Your task to perform on an android device: turn on improve location accuracy Image 0: 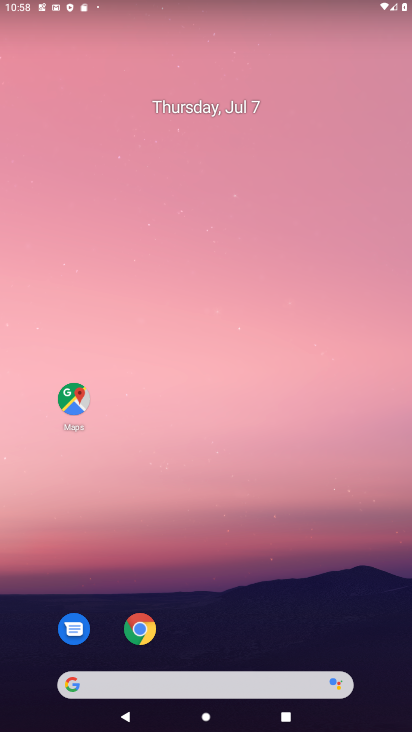
Step 0: drag from (372, 636) to (304, 81)
Your task to perform on an android device: turn on improve location accuracy Image 1: 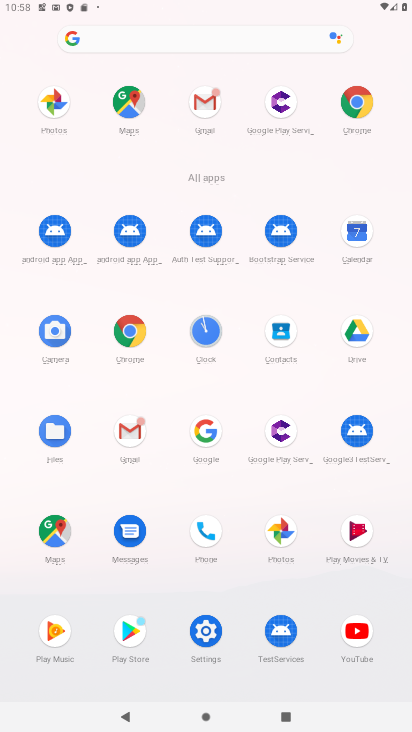
Step 1: click (209, 640)
Your task to perform on an android device: turn on improve location accuracy Image 2: 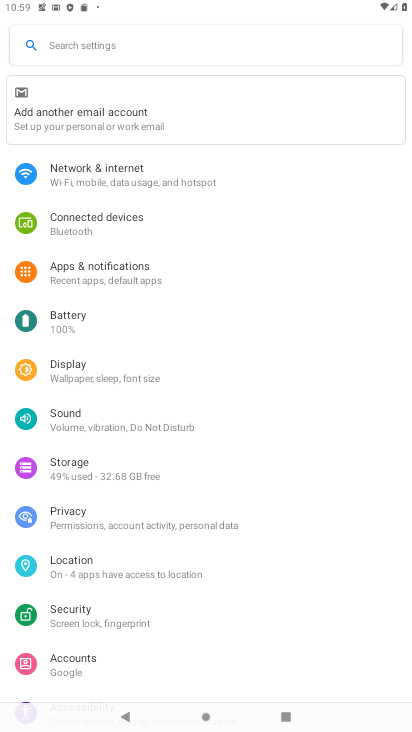
Step 2: drag from (147, 586) to (148, 490)
Your task to perform on an android device: turn on improve location accuracy Image 3: 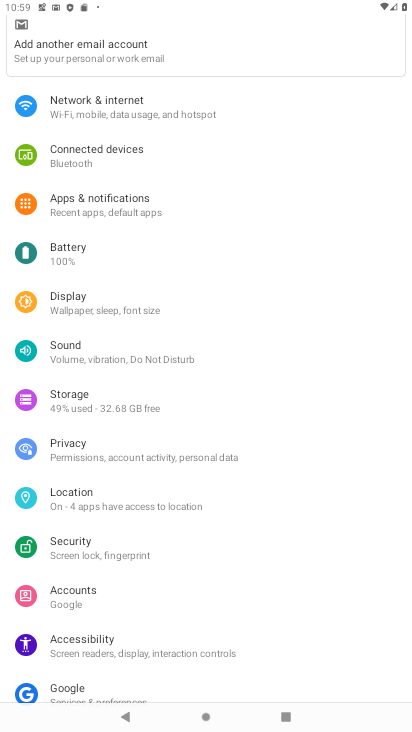
Step 3: click (147, 490)
Your task to perform on an android device: turn on improve location accuracy Image 4: 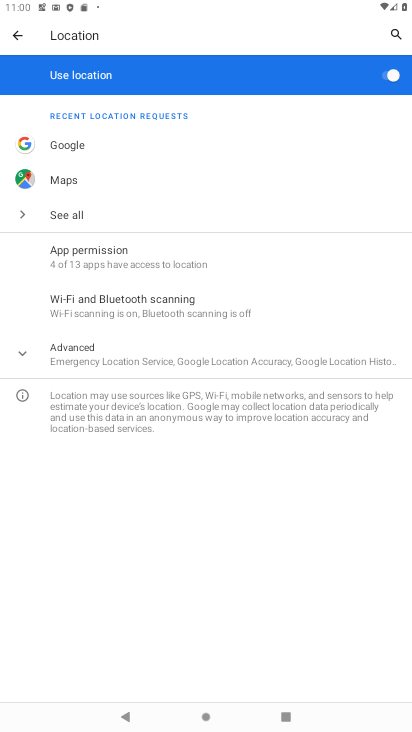
Step 4: click (137, 355)
Your task to perform on an android device: turn on improve location accuracy Image 5: 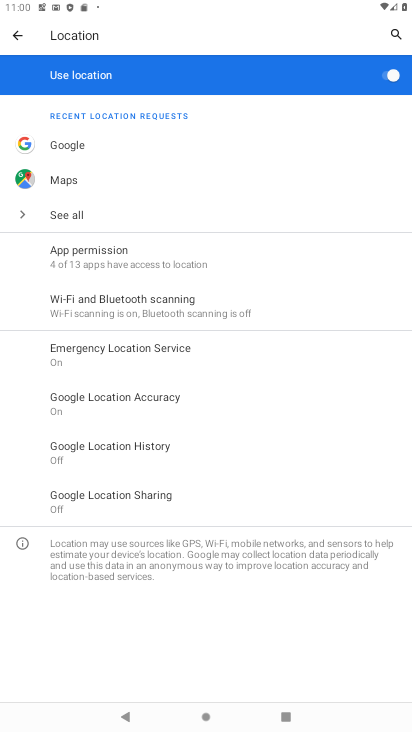
Step 5: click (131, 391)
Your task to perform on an android device: turn on improve location accuracy Image 6: 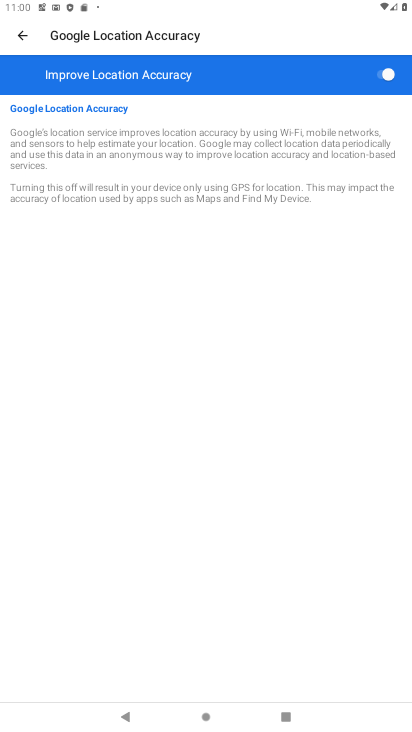
Step 6: task complete